Your task to perform on an android device: turn off data saver in the chrome app Image 0: 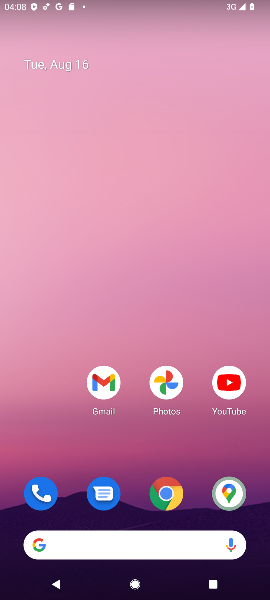
Step 0: drag from (63, 463) to (74, 95)
Your task to perform on an android device: turn off data saver in the chrome app Image 1: 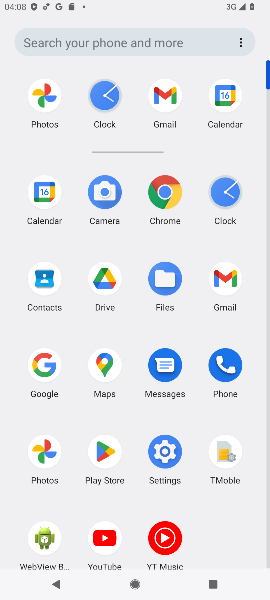
Step 1: click (170, 194)
Your task to perform on an android device: turn off data saver in the chrome app Image 2: 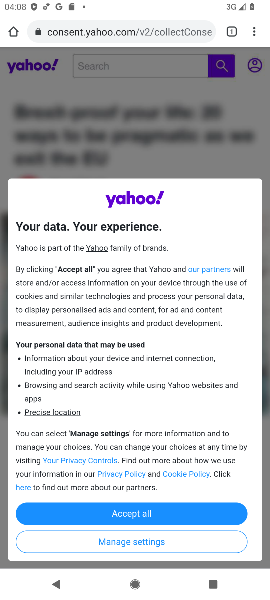
Step 2: click (253, 29)
Your task to perform on an android device: turn off data saver in the chrome app Image 3: 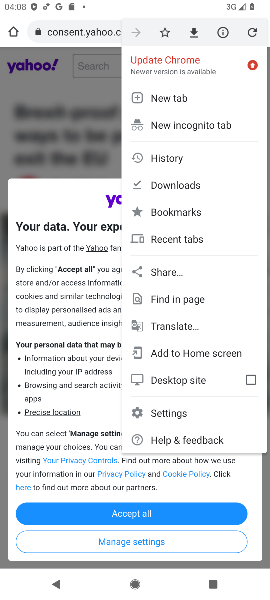
Step 3: click (210, 405)
Your task to perform on an android device: turn off data saver in the chrome app Image 4: 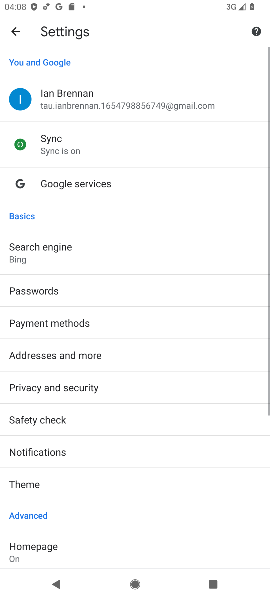
Step 4: drag from (197, 429) to (208, 333)
Your task to perform on an android device: turn off data saver in the chrome app Image 5: 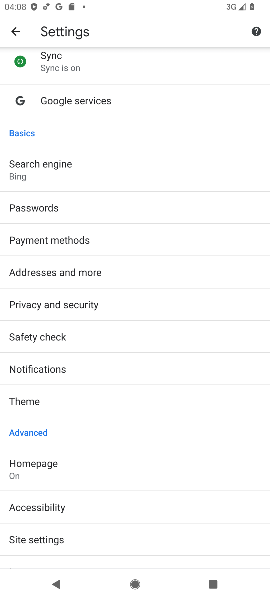
Step 5: drag from (210, 470) to (209, 285)
Your task to perform on an android device: turn off data saver in the chrome app Image 6: 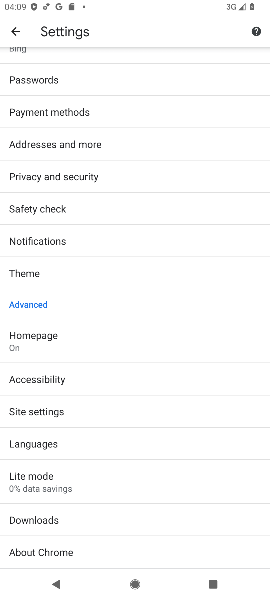
Step 6: drag from (187, 428) to (195, 310)
Your task to perform on an android device: turn off data saver in the chrome app Image 7: 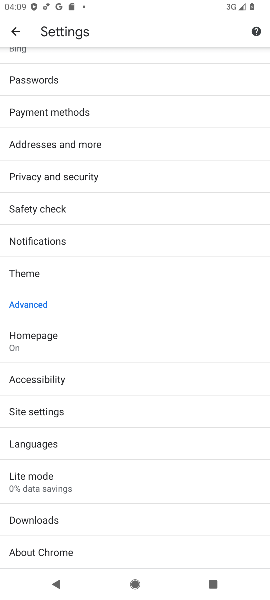
Step 7: click (178, 478)
Your task to perform on an android device: turn off data saver in the chrome app Image 8: 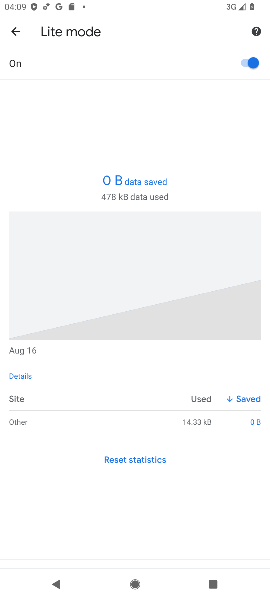
Step 8: click (246, 64)
Your task to perform on an android device: turn off data saver in the chrome app Image 9: 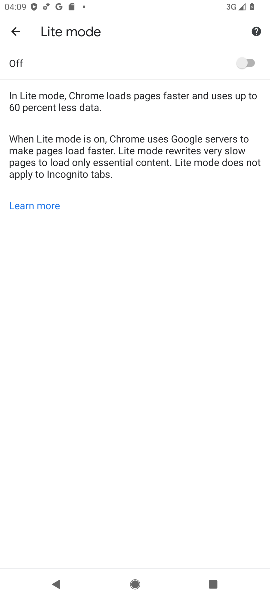
Step 9: task complete